Your task to perform on an android device: Add "jbl charge 4" to the cart on ebay.com Image 0: 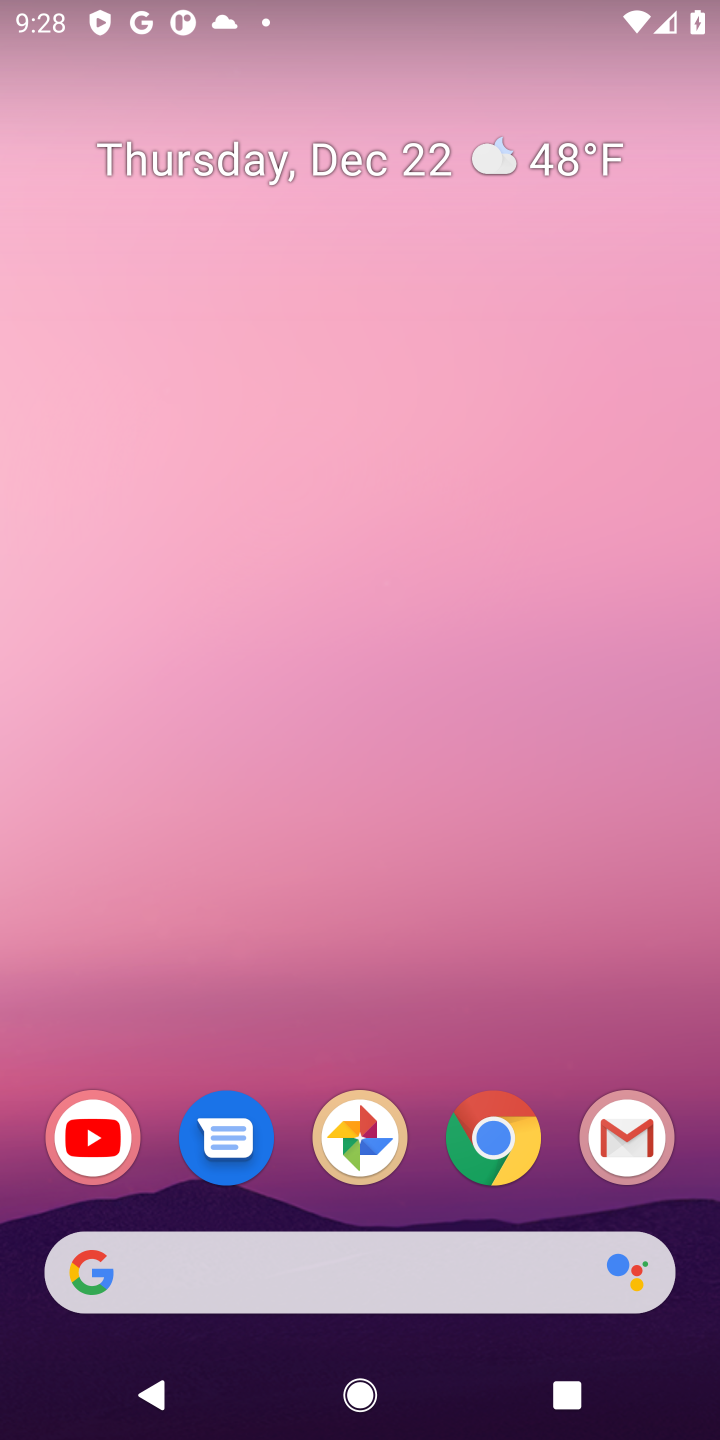
Step 0: click (519, 1170)
Your task to perform on an android device: Add "jbl charge 4" to the cart on ebay.com Image 1: 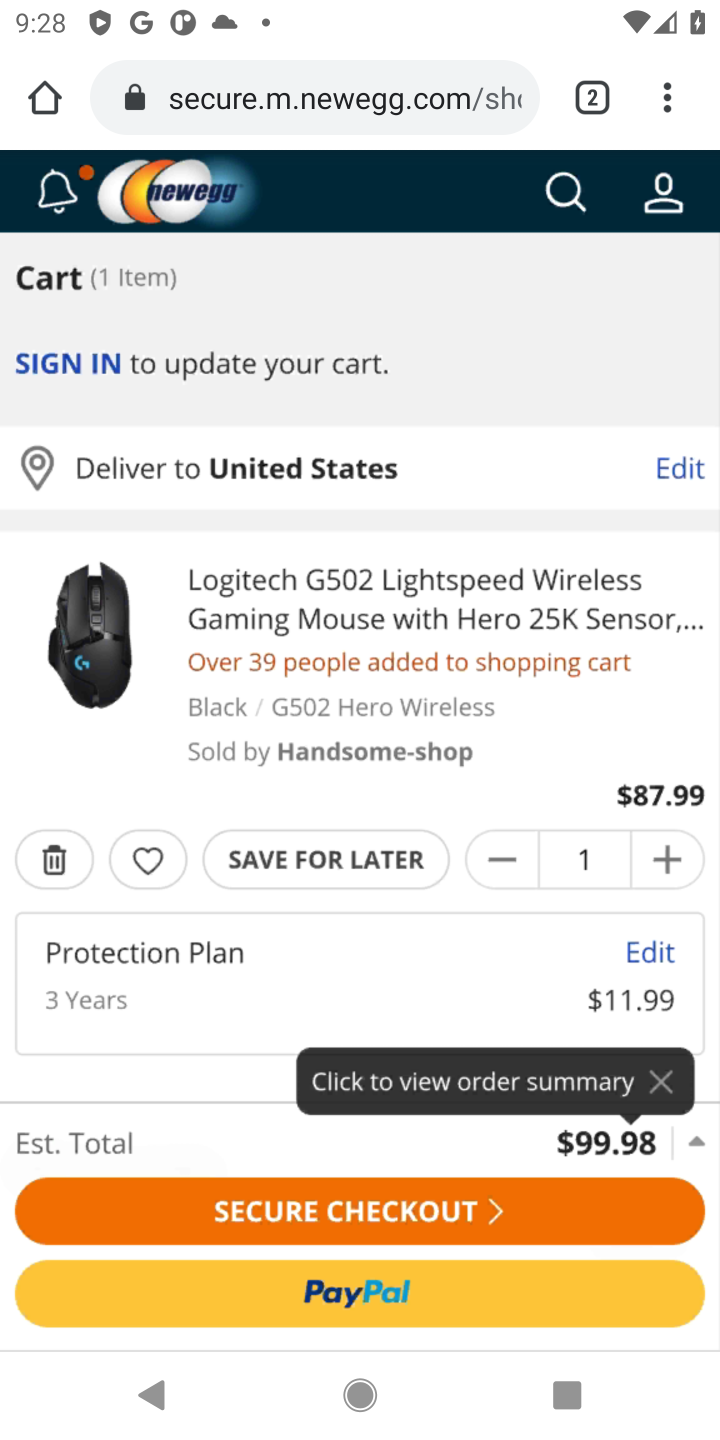
Step 1: click (212, 95)
Your task to perform on an android device: Add "jbl charge 4" to the cart on ebay.com Image 2: 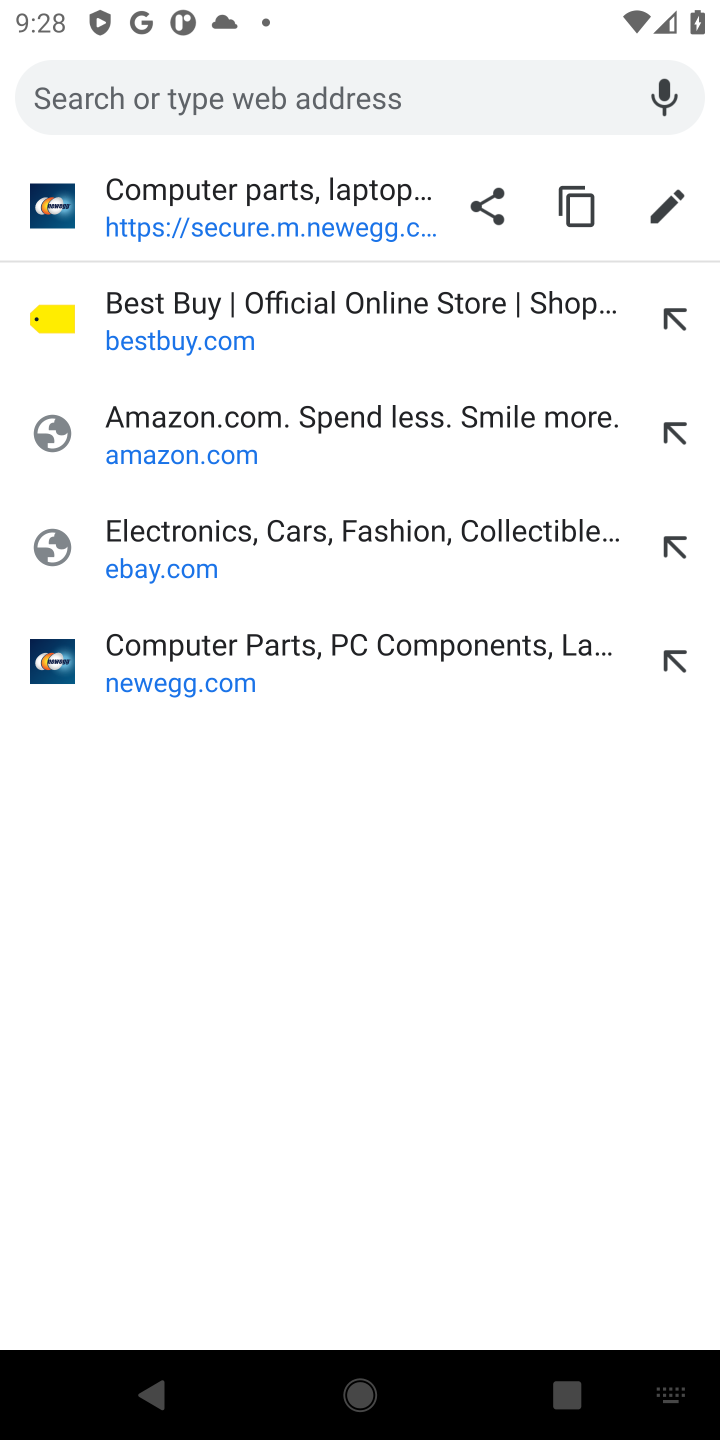
Step 2: type "ebay.com"
Your task to perform on an android device: Add "jbl charge 4" to the cart on ebay.com Image 3: 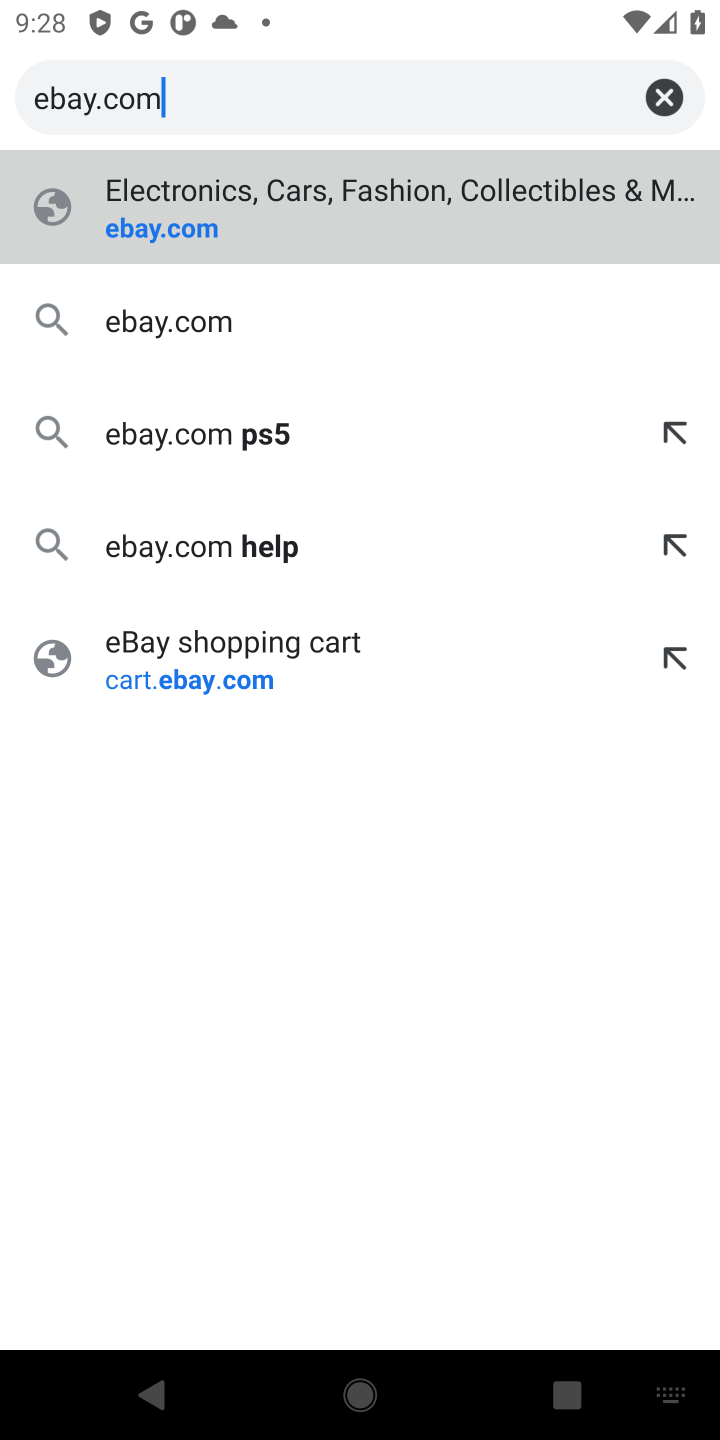
Step 3: click (218, 172)
Your task to perform on an android device: Add "jbl charge 4" to the cart on ebay.com Image 4: 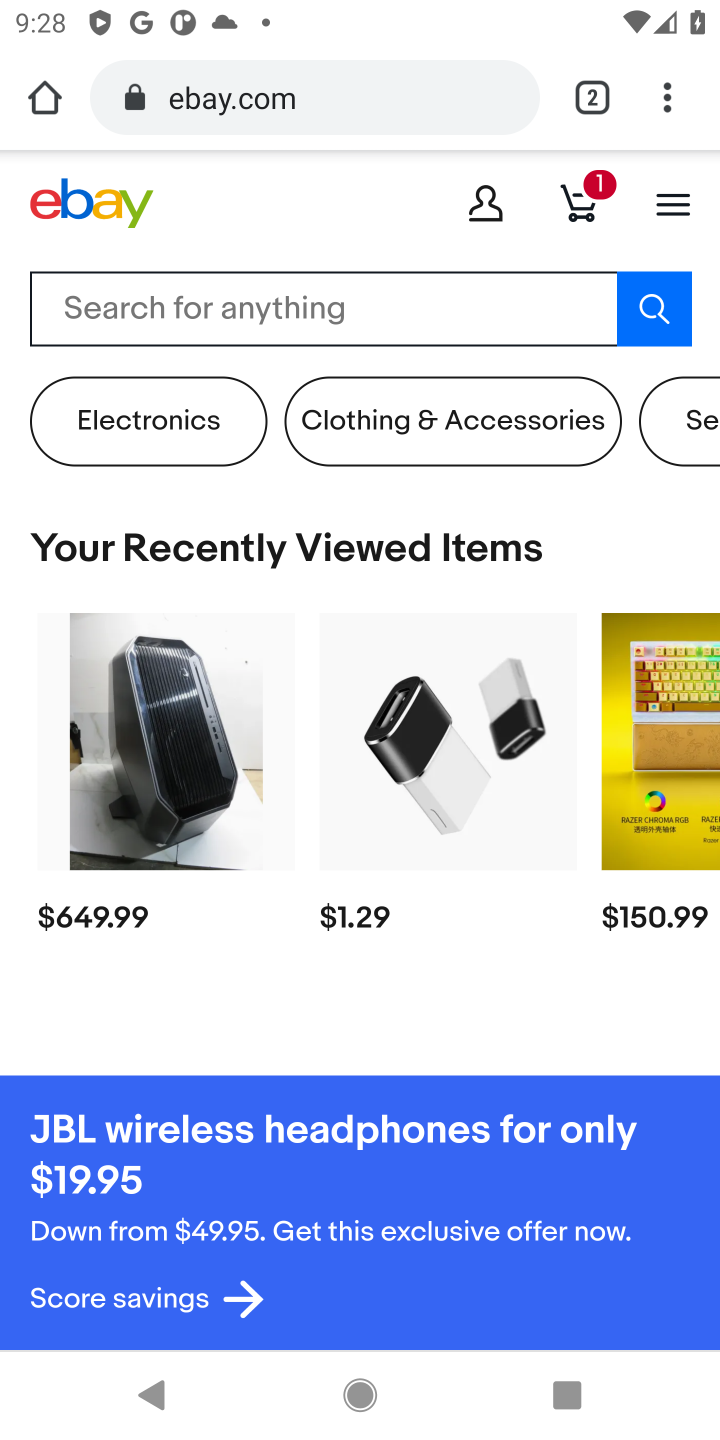
Step 4: click (351, 305)
Your task to perform on an android device: Add "jbl charge 4" to the cart on ebay.com Image 5: 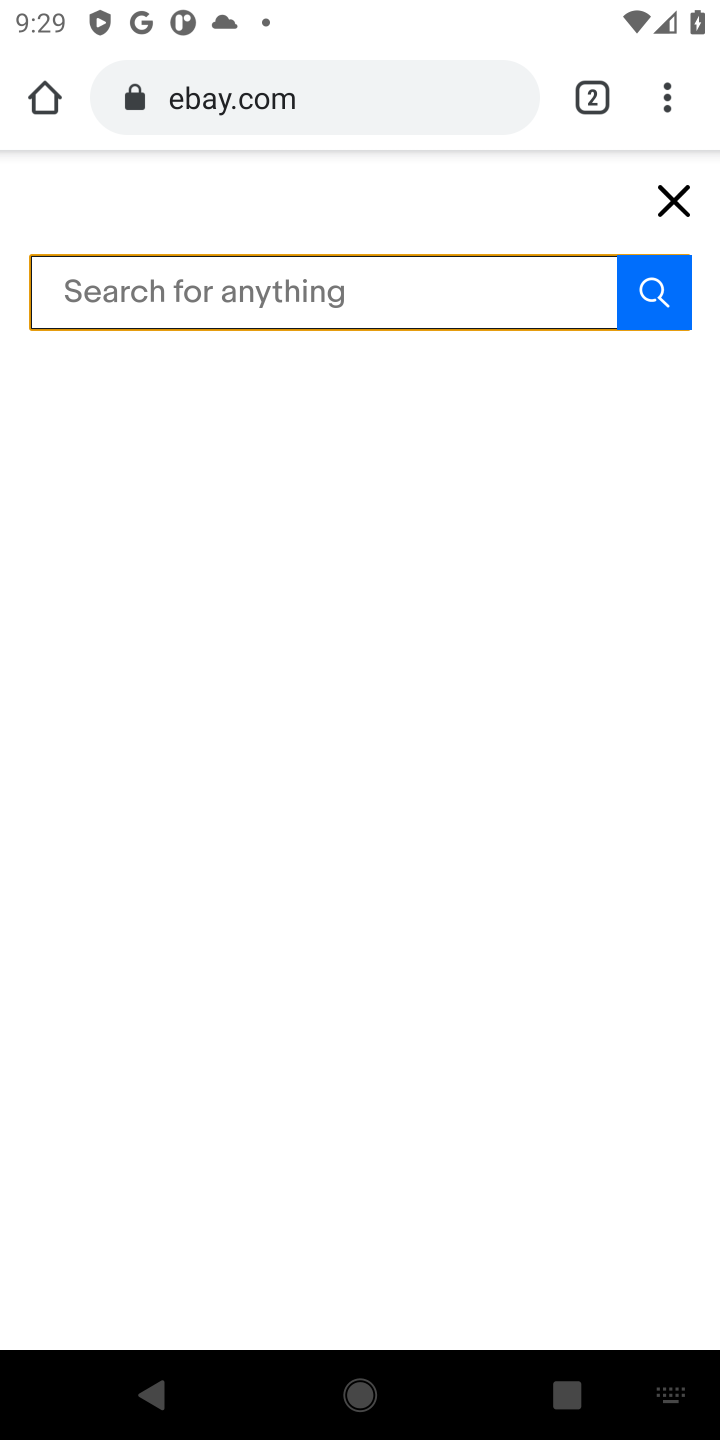
Step 5: type "jbl charge 4"
Your task to perform on an android device: Add "jbl charge 4" to the cart on ebay.com Image 6: 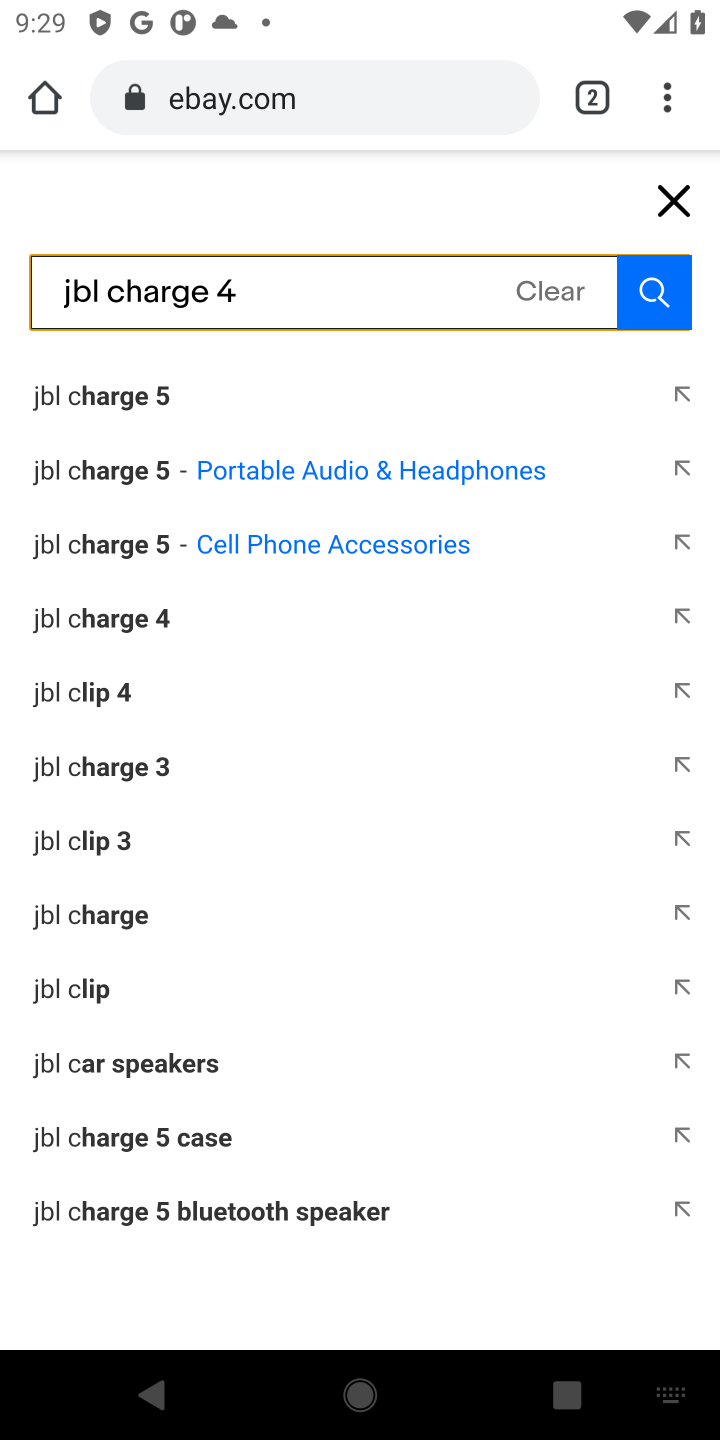
Step 6: click (644, 297)
Your task to perform on an android device: Add "jbl charge 4" to the cart on ebay.com Image 7: 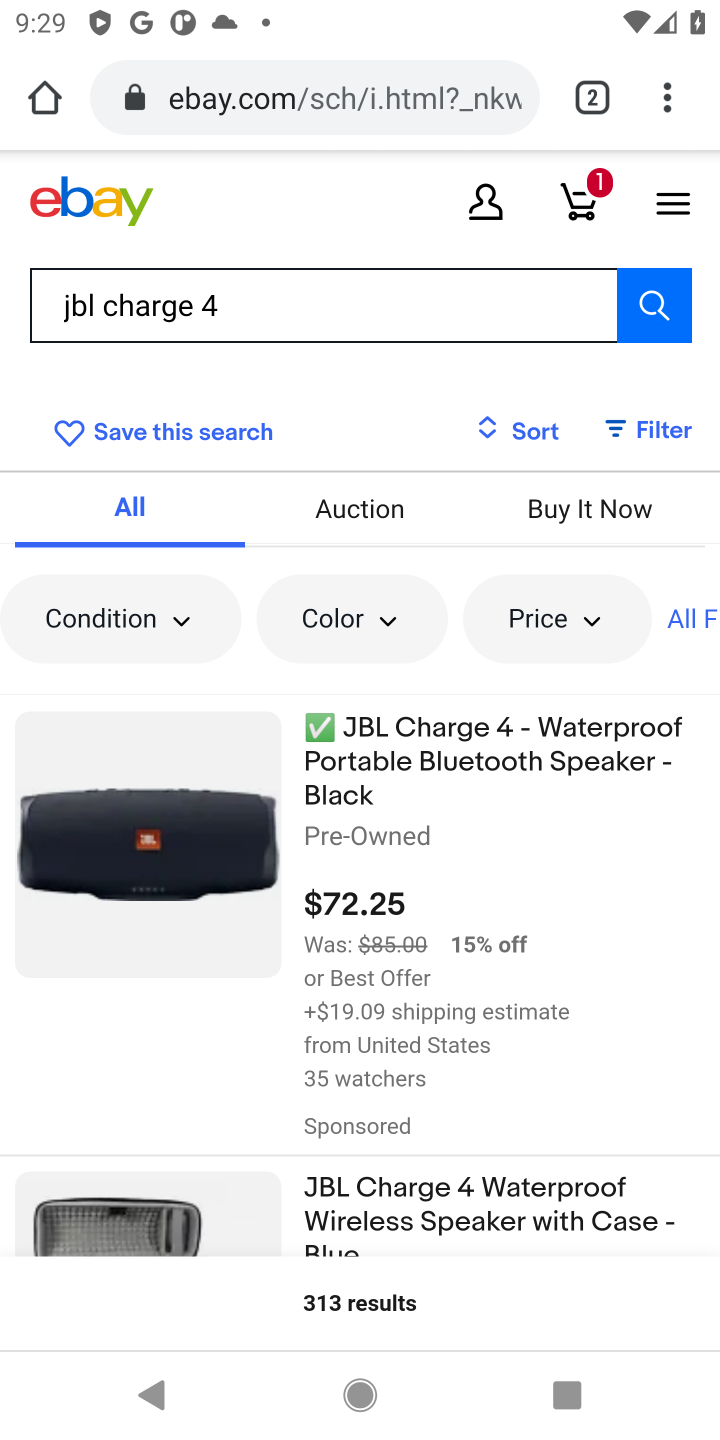
Step 7: click (484, 764)
Your task to perform on an android device: Add "jbl charge 4" to the cart on ebay.com Image 8: 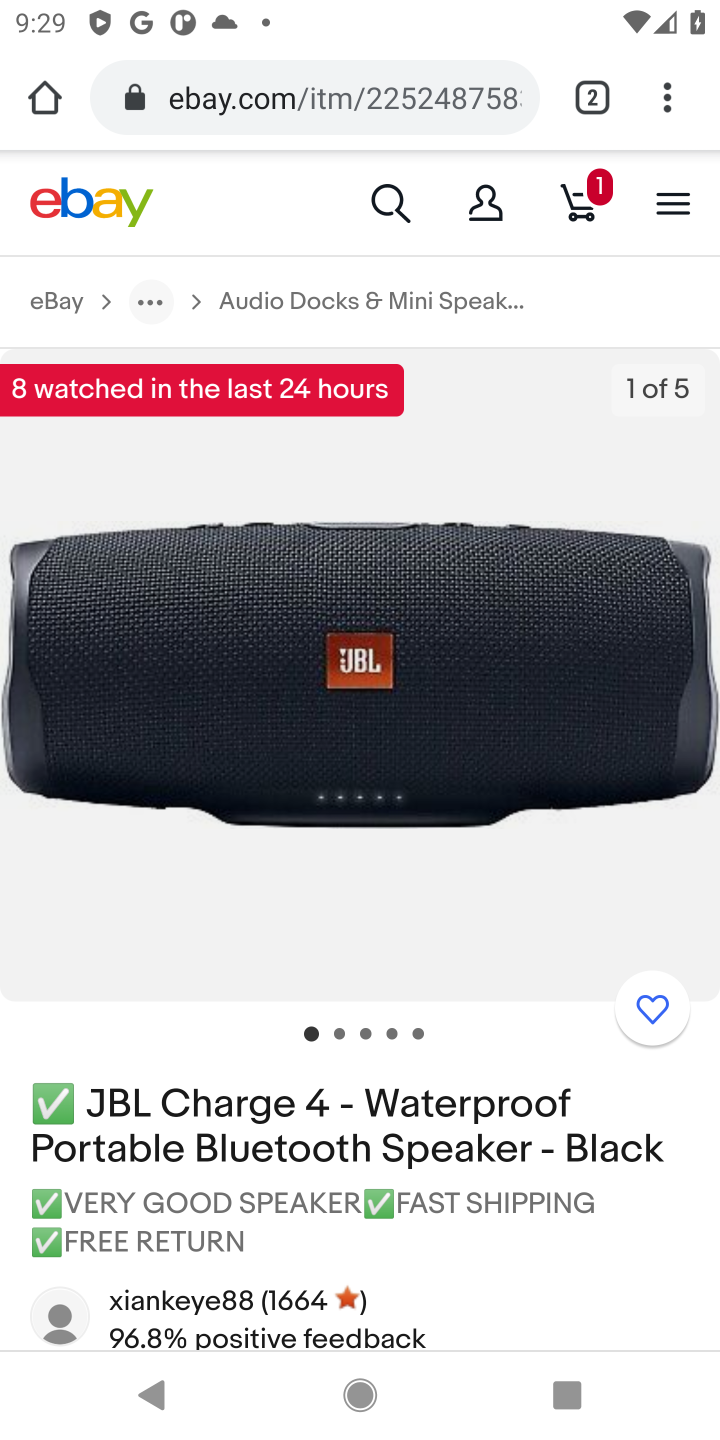
Step 8: drag from (561, 1258) to (588, 686)
Your task to perform on an android device: Add "jbl charge 4" to the cart on ebay.com Image 9: 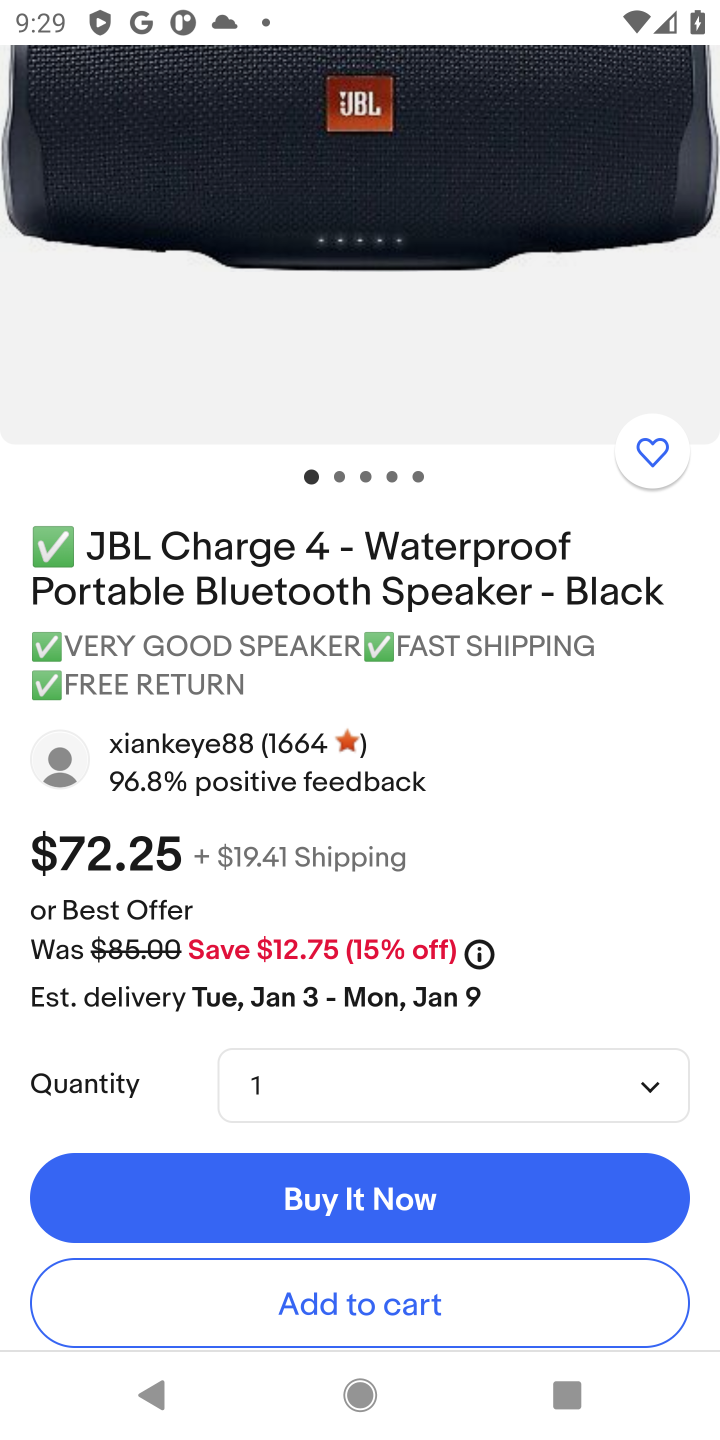
Step 9: click (419, 1322)
Your task to perform on an android device: Add "jbl charge 4" to the cart on ebay.com Image 10: 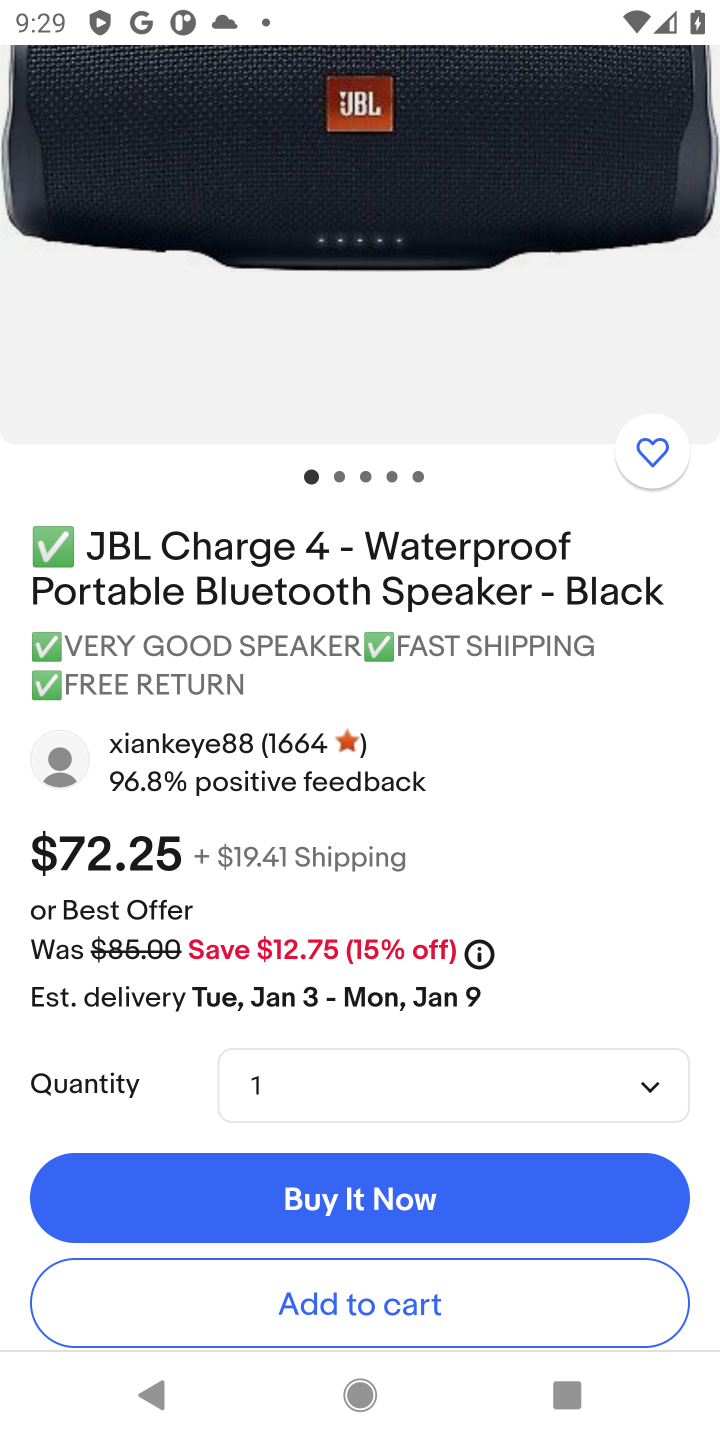
Step 10: task complete